Your task to perform on an android device: Look up the book "The Girl on the Train". Image 0: 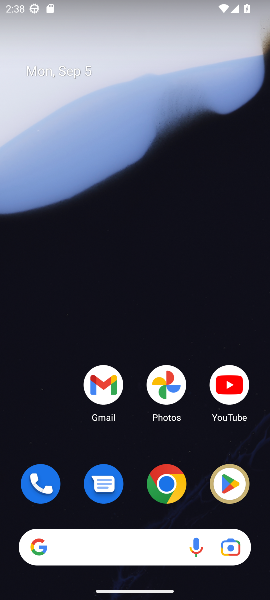
Step 0: click (169, 484)
Your task to perform on an android device: Look up the book "The Girl on the Train". Image 1: 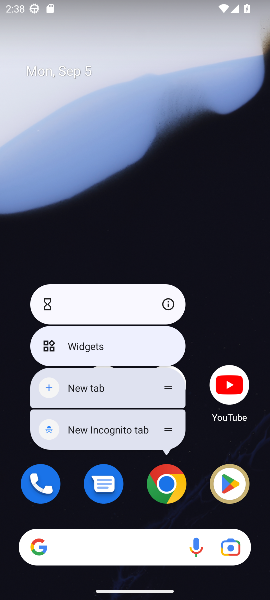
Step 1: click (169, 484)
Your task to perform on an android device: Look up the book "The Girl on the Train". Image 2: 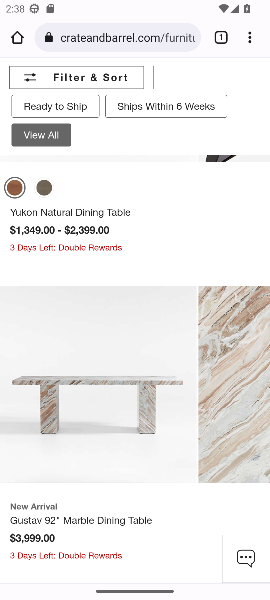
Step 2: click (152, 37)
Your task to perform on an android device: Look up the book "The Girl on the Train". Image 3: 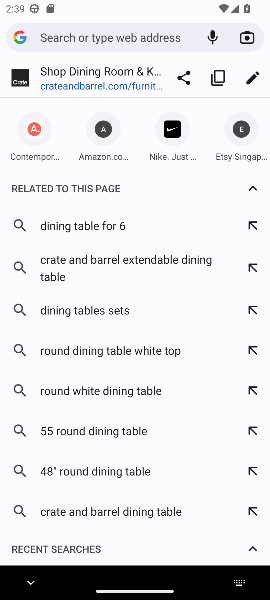
Step 3: type "The Girl on the Train book"
Your task to perform on an android device: Look up the book "The Girl on the Train". Image 4: 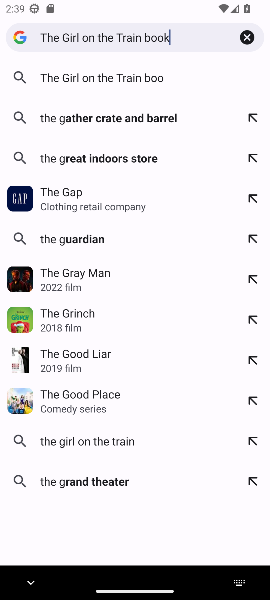
Step 4: press enter
Your task to perform on an android device: Look up the book "The Girl on the Train". Image 5: 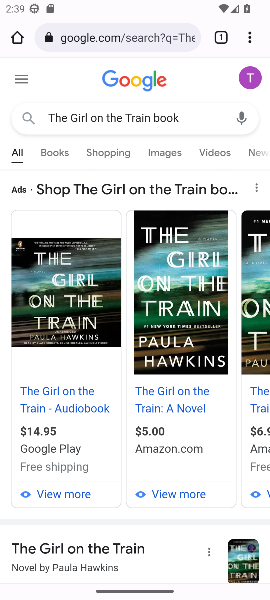
Step 5: drag from (160, 468) to (199, 335)
Your task to perform on an android device: Look up the book "The Girl on the Train". Image 6: 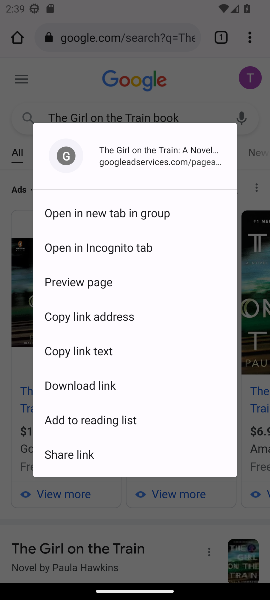
Step 6: click (214, 536)
Your task to perform on an android device: Look up the book "The Girl on the Train". Image 7: 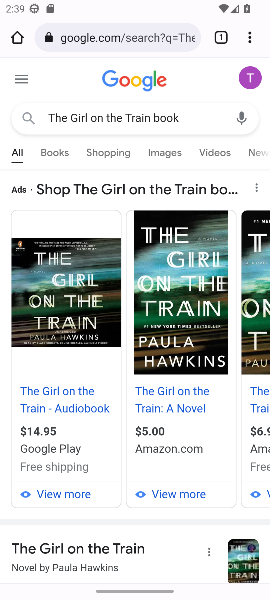
Step 7: task complete